Your task to perform on an android device: clear history in the chrome app Image 0: 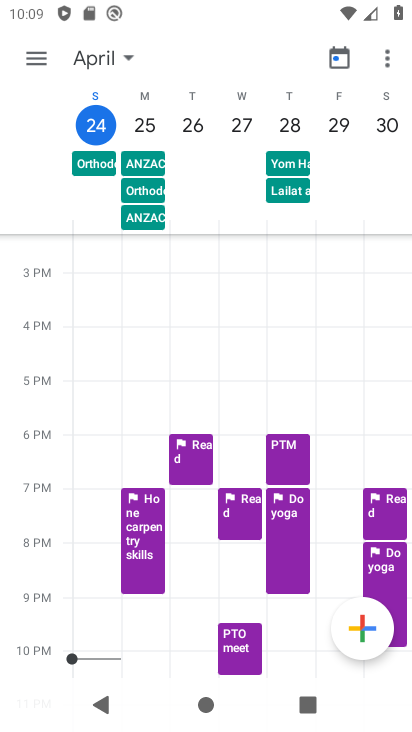
Step 0: press home button
Your task to perform on an android device: clear history in the chrome app Image 1: 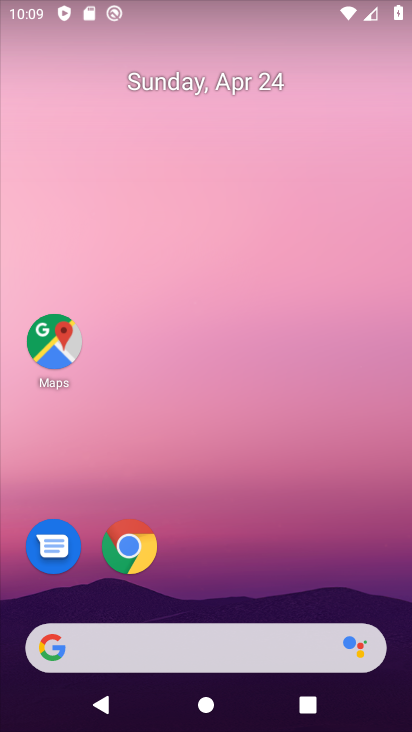
Step 1: click (143, 541)
Your task to perform on an android device: clear history in the chrome app Image 2: 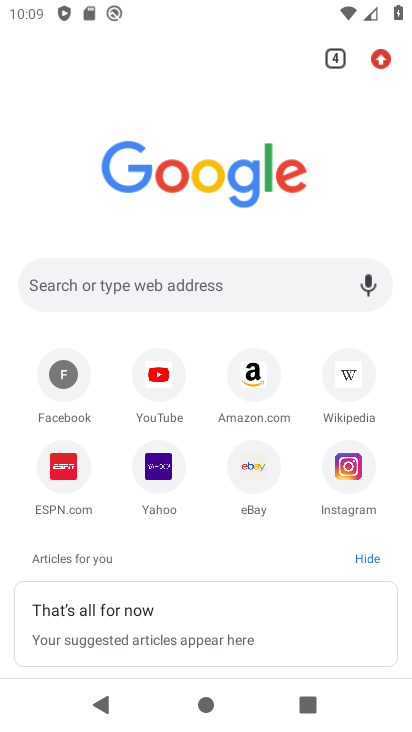
Step 2: click (380, 59)
Your task to perform on an android device: clear history in the chrome app Image 3: 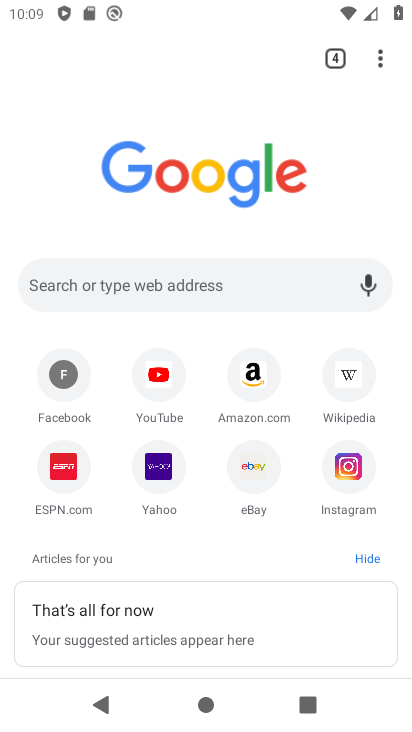
Step 3: click (389, 62)
Your task to perform on an android device: clear history in the chrome app Image 4: 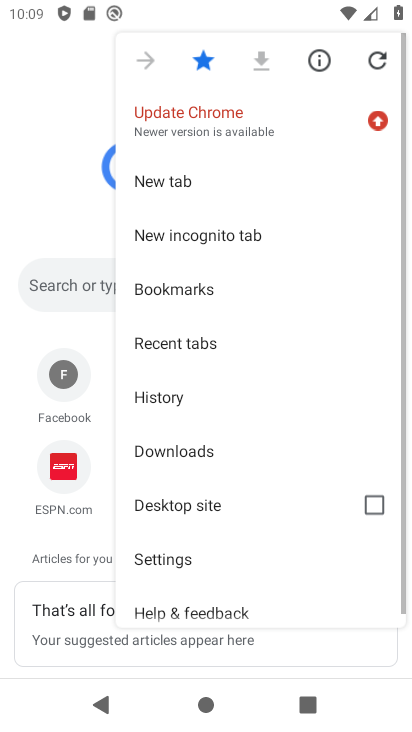
Step 4: drag from (289, 602) to (285, 133)
Your task to perform on an android device: clear history in the chrome app Image 5: 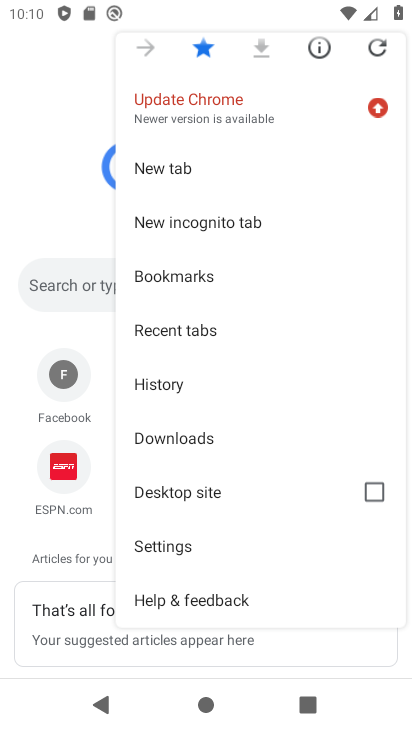
Step 5: click (184, 533)
Your task to perform on an android device: clear history in the chrome app Image 6: 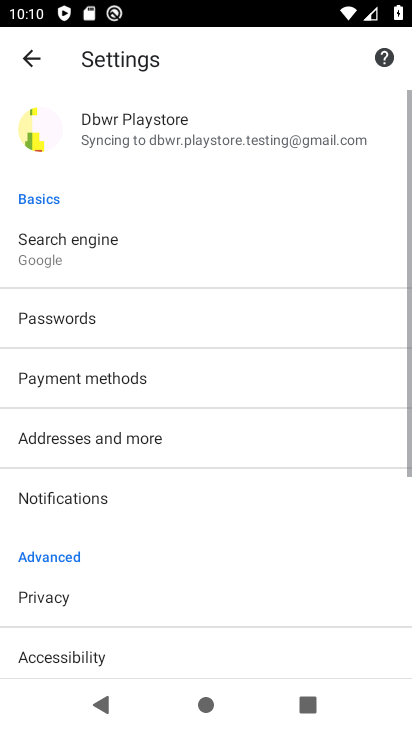
Step 6: drag from (245, 552) to (251, 261)
Your task to perform on an android device: clear history in the chrome app Image 7: 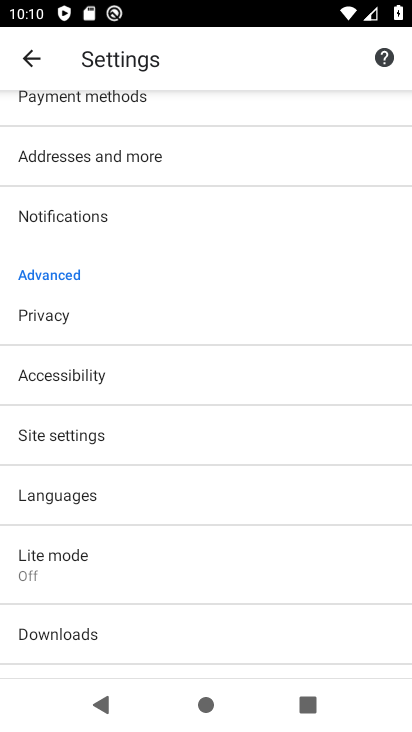
Step 7: click (74, 310)
Your task to perform on an android device: clear history in the chrome app Image 8: 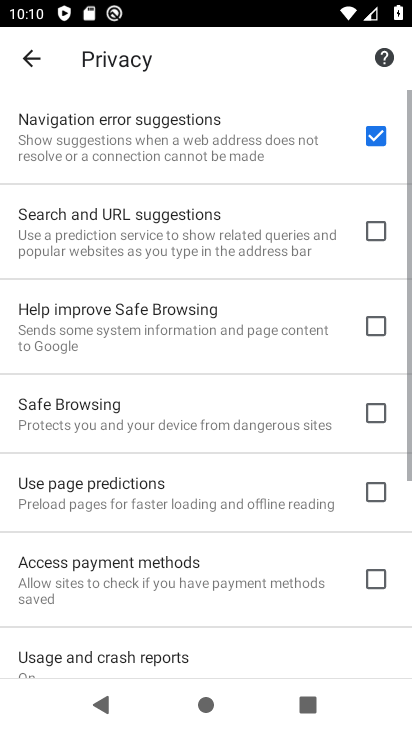
Step 8: drag from (173, 506) to (212, 55)
Your task to perform on an android device: clear history in the chrome app Image 9: 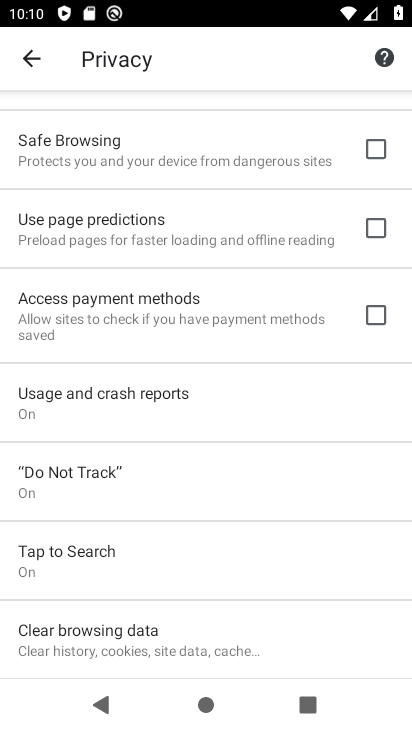
Step 9: click (145, 652)
Your task to perform on an android device: clear history in the chrome app Image 10: 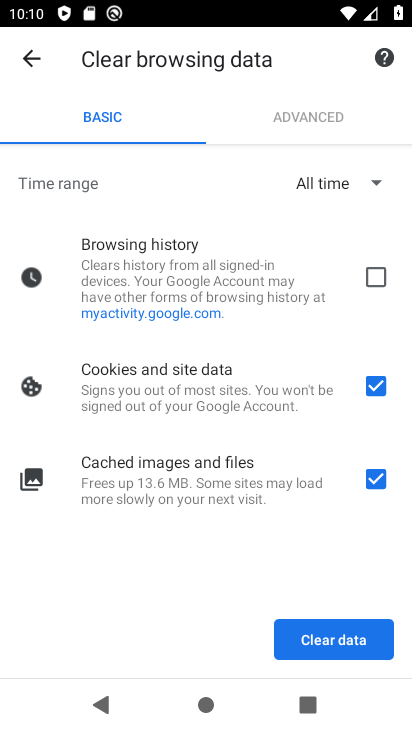
Step 10: click (372, 272)
Your task to perform on an android device: clear history in the chrome app Image 11: 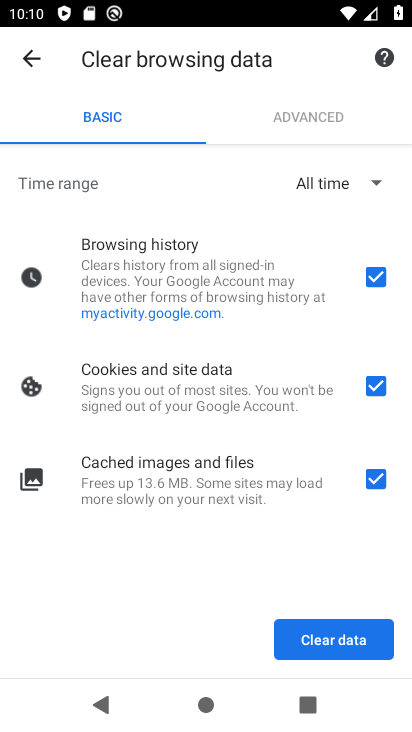
Step 11: click (339, 645)
Your task to perform on an android device: clear history in the chrome app Image 12: 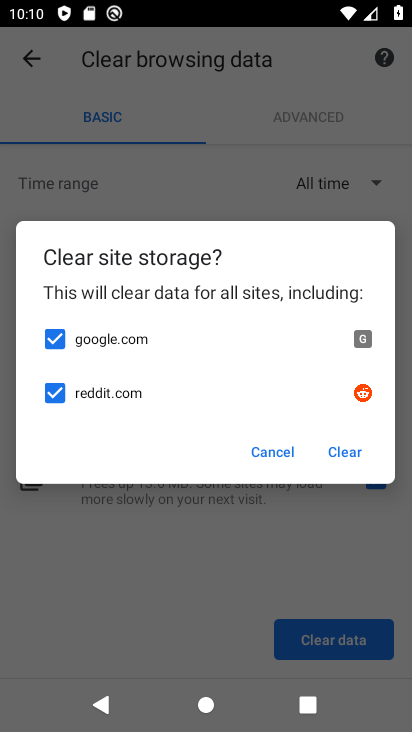
Step 12: click (360, 451)
Your task to perform on an android device: clear history in the chrome app Image 13: 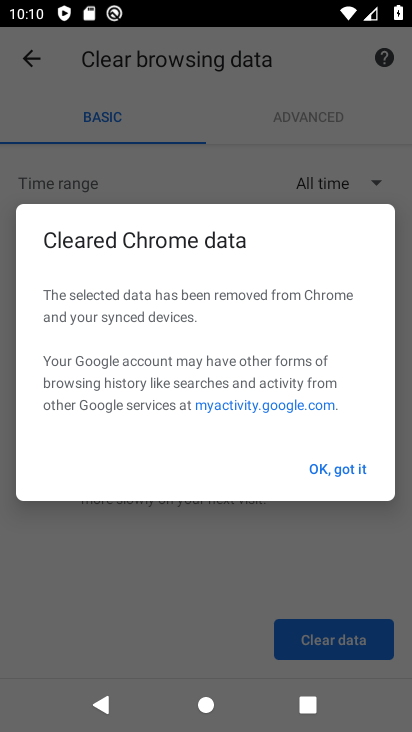
Step 13: click (342, 477)
Your task to perform on an android device: clear history in the chrome app Image 14: 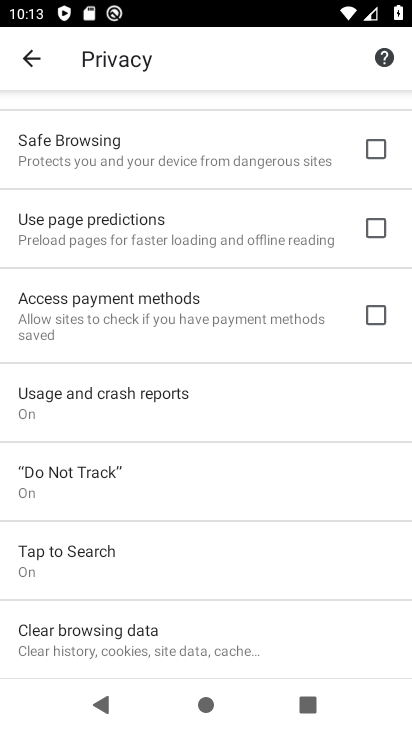
Step 14: task complete